Your task to perform on an android device: open device folders in google photos Image 0: 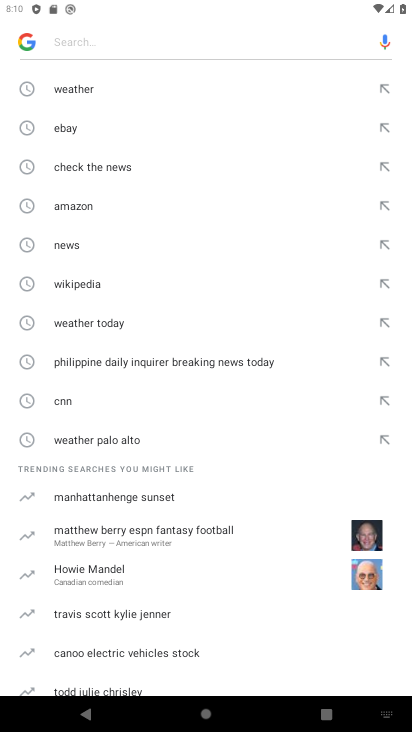
Step 0: press home button
Your task to perform on an android device: open device folders in google photos Image 1: 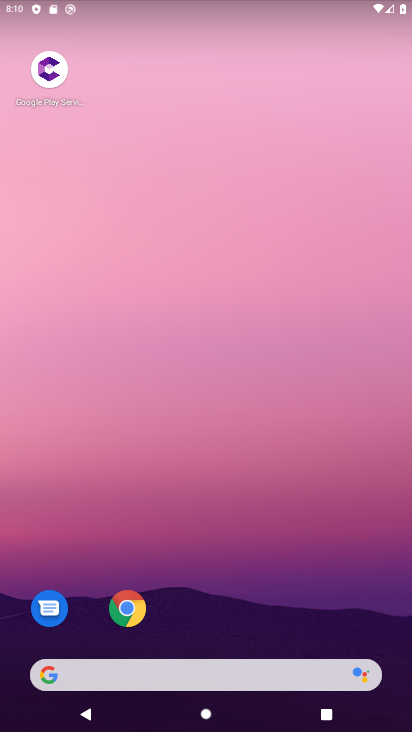
Step 1: drag from (291, 601) to (154, 3)
Your task to perform on an android device: open device folders in google photos Image 2: 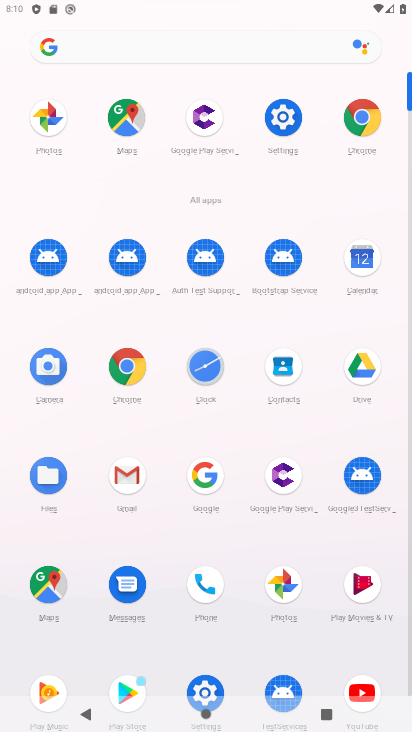
Step 2: click (277, 576)
Your task to perform on an android device: open device folders in google photos Image 3: 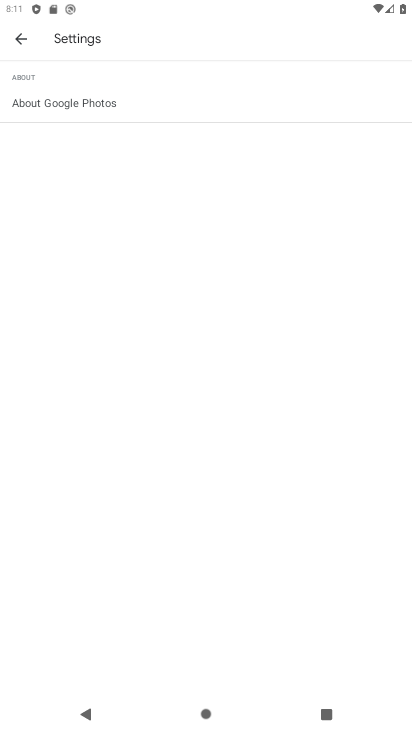
Step 3: click (22, 40)
Your task to perform on an android device: open device folders in google photos Image 4: 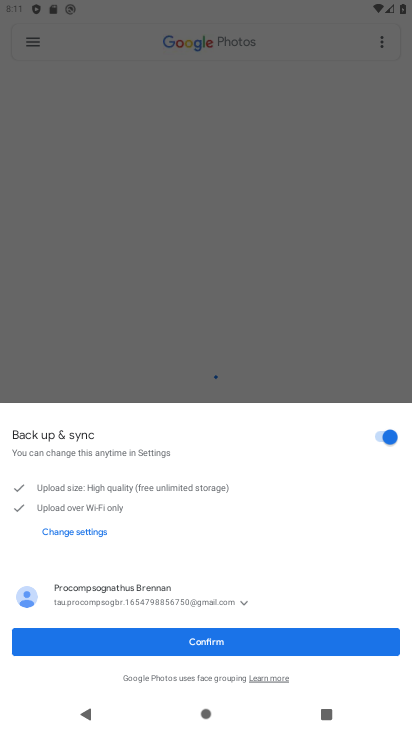
Step 4: click (268, 653)
Your task to perform on an android device: open device folders in google photos Image 5: 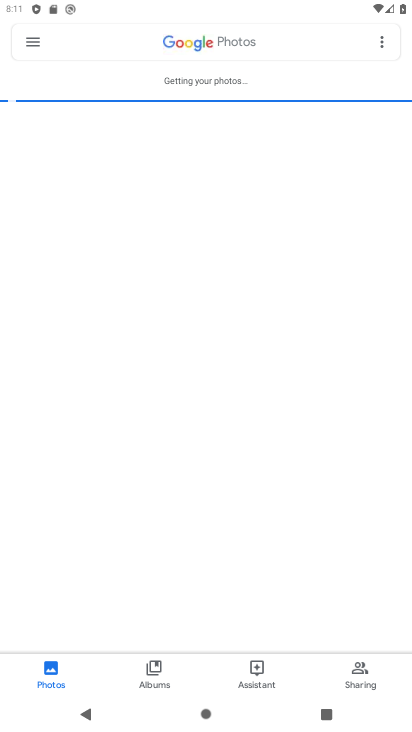
Step 5: click (36, 38)
Your task to perform on an android device: open device folders in google photos Image 6: 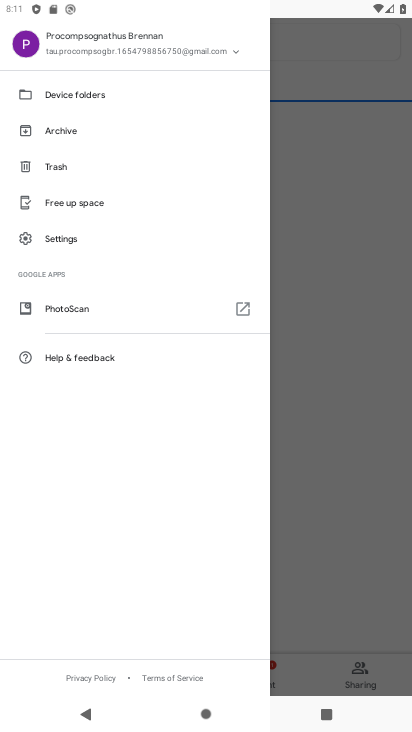
Step 6: click (61, 90)
Your task to perform on an android device: open device folders in google photos Image 7: 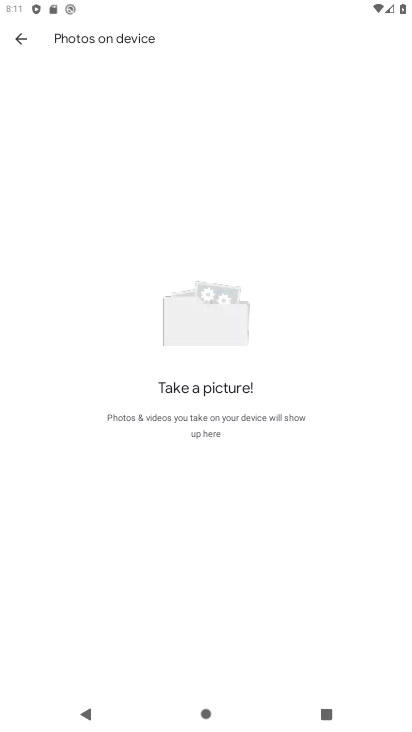
Step 7: task complete